Your task to perform on an android device: Open Wikipedia Image 0: 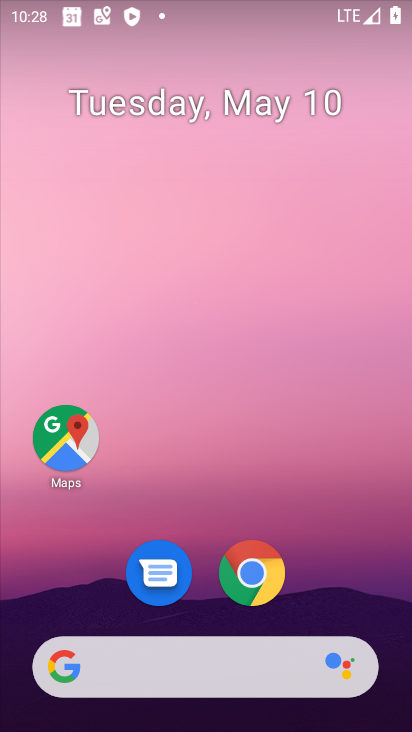
Step 0: click (249, 574)
Your task to perform on an android device: Open Wikipedia Image 1: 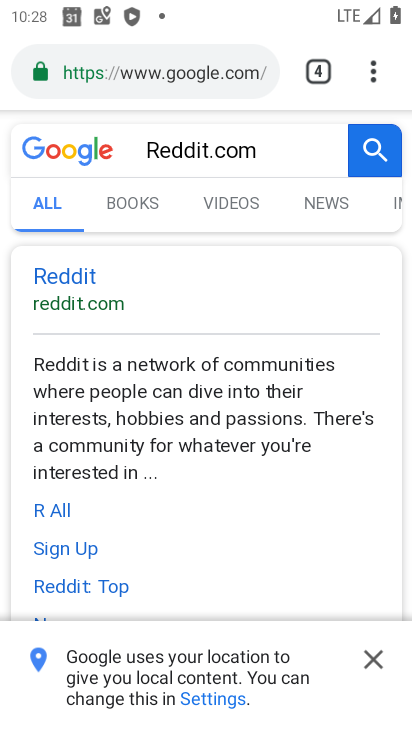
Step 1: click (371, 68)
Your task to perform on an android device: Open Wikipedia Image 2: 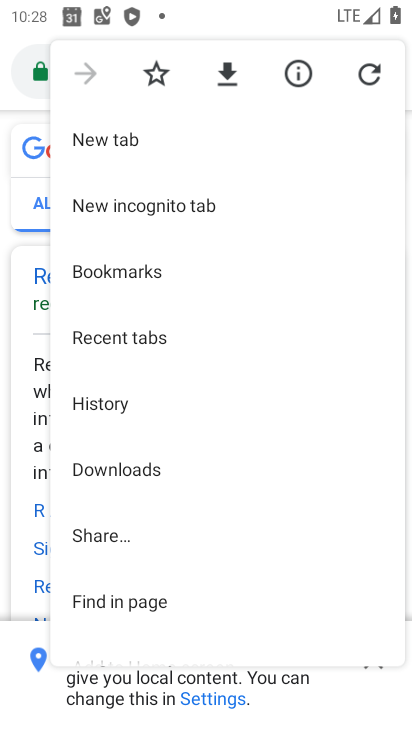
Step 2: click (128, 138)
Your task to perform on an android device: Open Wikipedia Image 3: 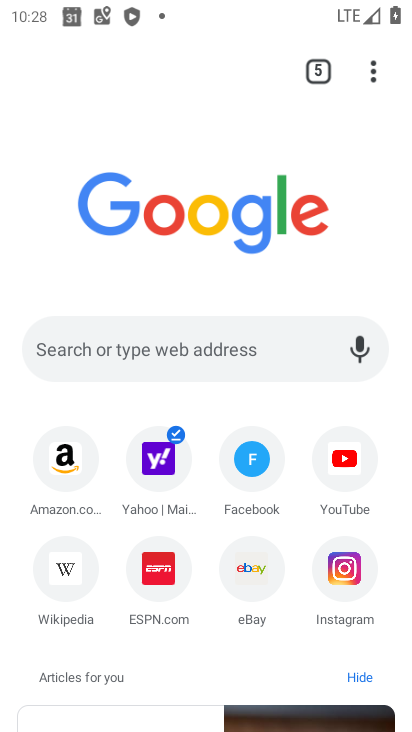
Step 3: click (58, 567)
Your task to perform on an android device: Open Wikipedia Image 4: 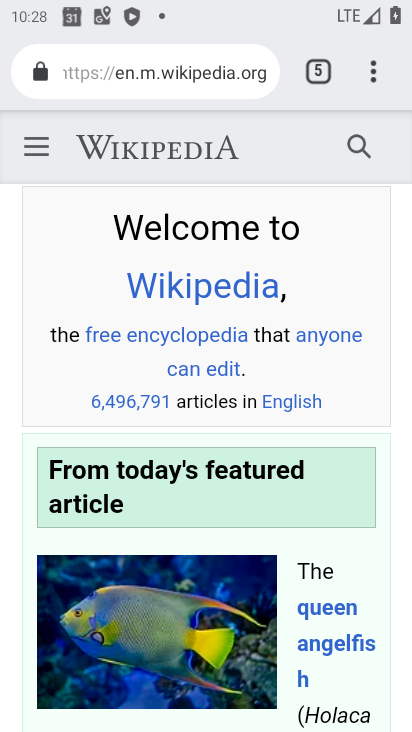
Step 4: task complete